Your task to perform on an android device: Add acer nitro to the cart on walmart, then select checkout. Image 0: 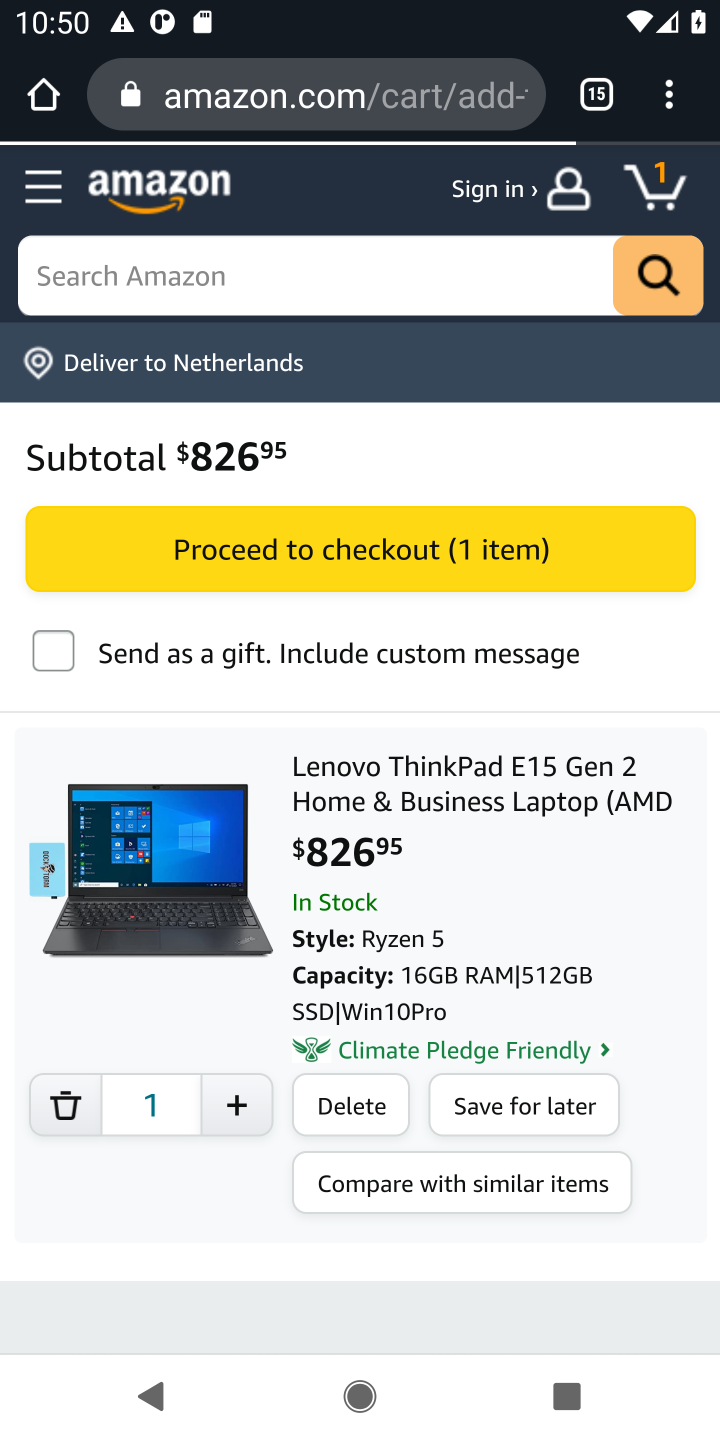
Step 0: press home button
Your task to perform on an android device: Add acer nitro to the cart on walmart, then select checkout. Image 1: 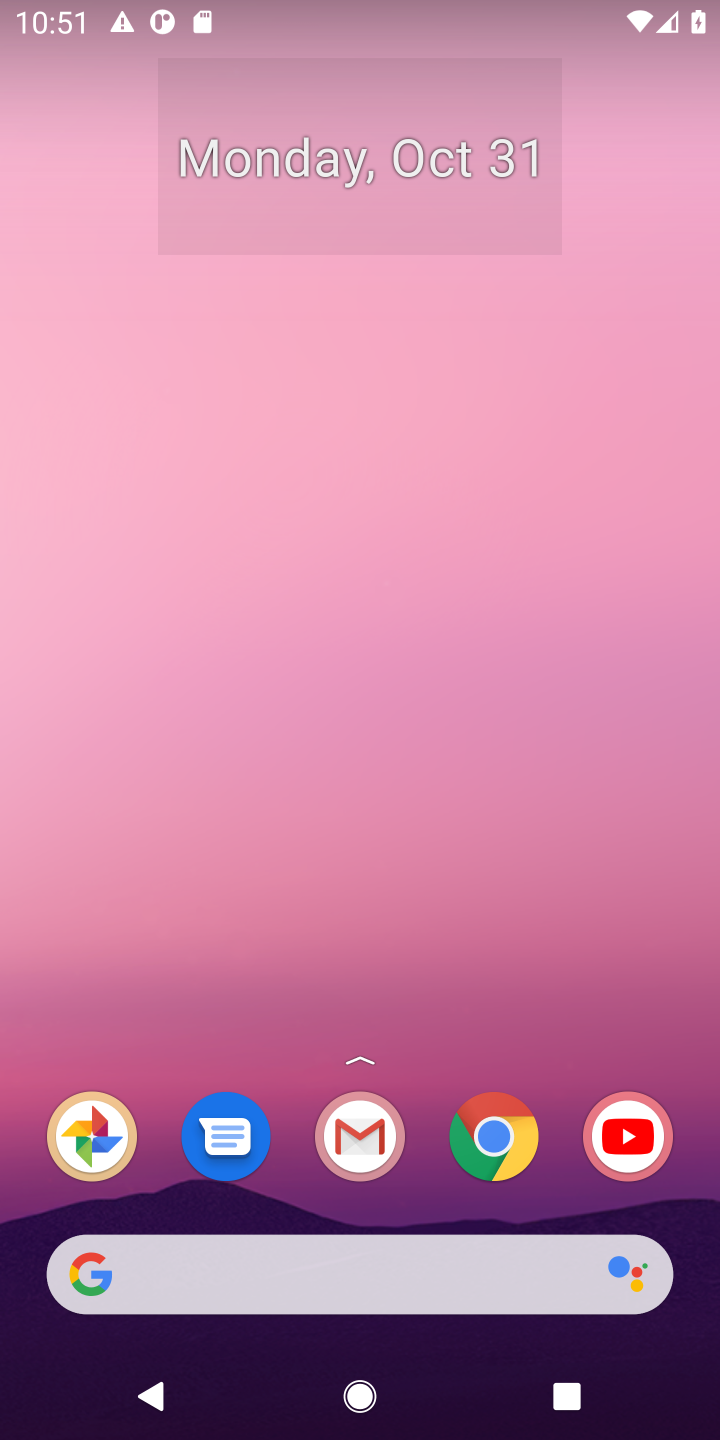
Step 1: click (126, 1263)
Your task to perform on an android device: Add acer nitro to the cart on walmart, then select checkout. Image 2: 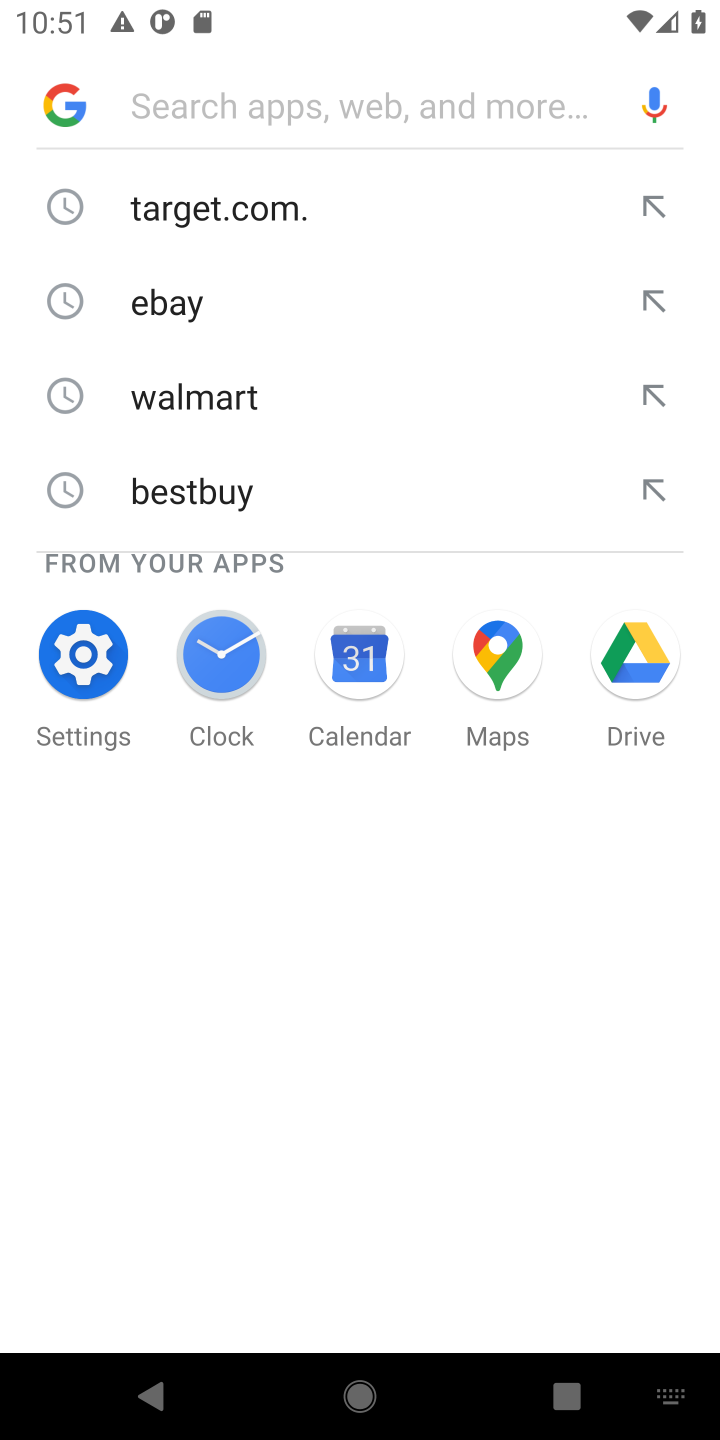
Step 2: type " walmart"
Your task to perform on an android device: Add acer nitro to the cart on walmart, then select checkout. Image 3: 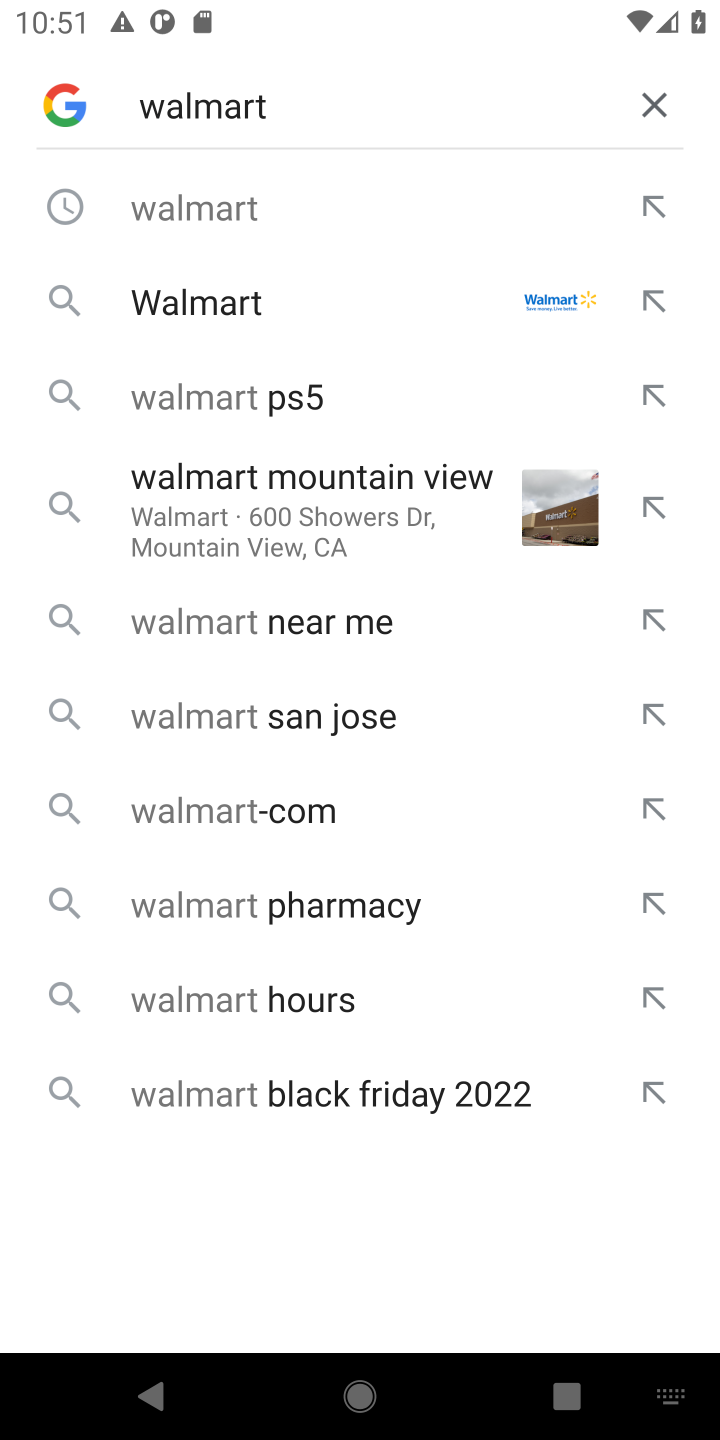
Step 3: press enter
Your task to perform on an android device: Add acer nitro to the cart on walmart, then select checkout. Image 4: 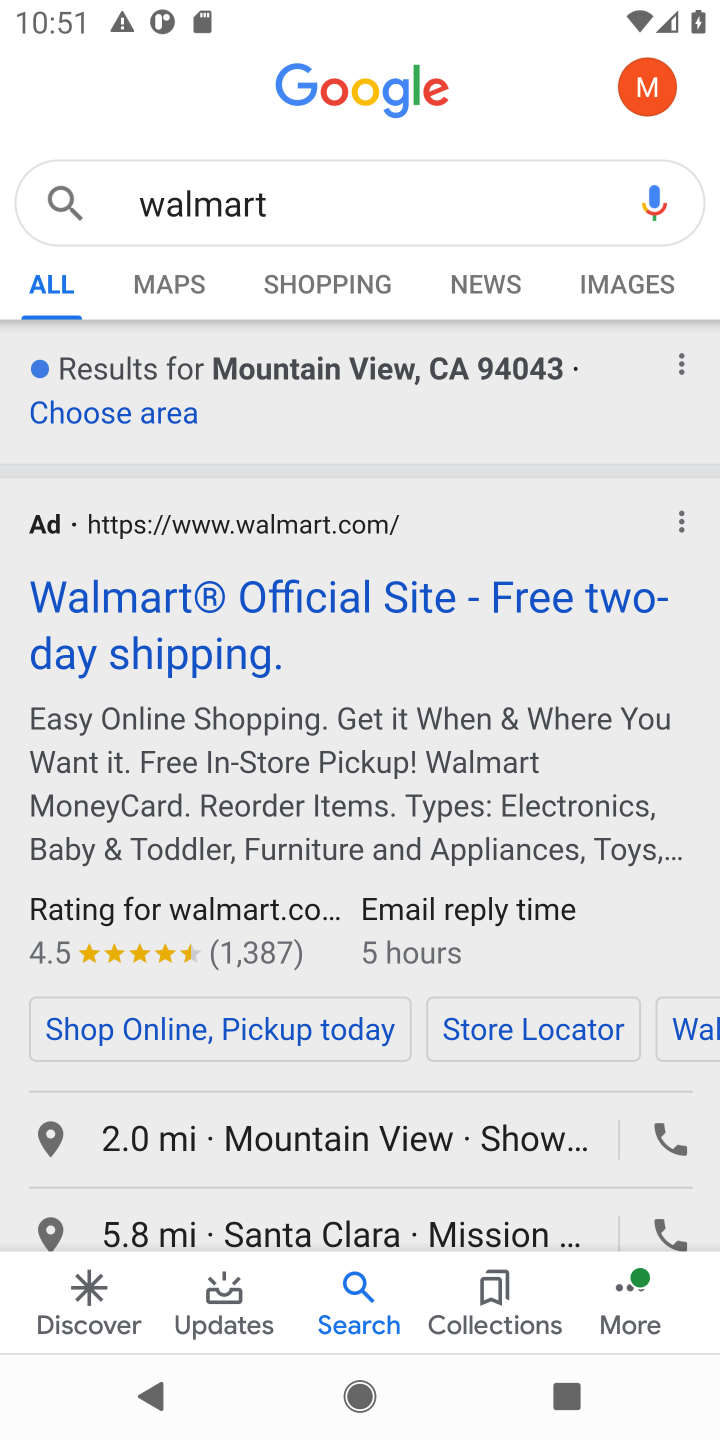
Step 4: click (133, 612)
Your task to perform on an android device: Add acer nitro to the cart on walmart, then select checkout. Image 5: 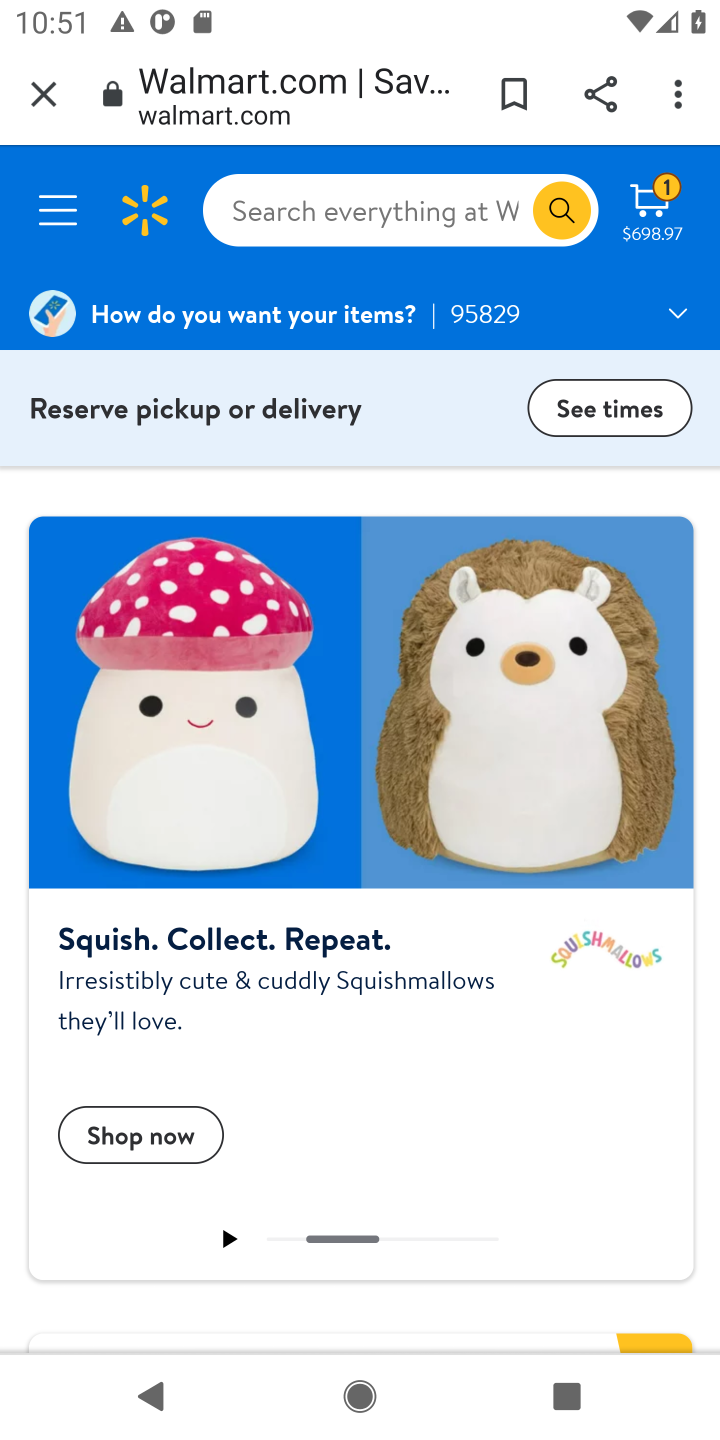
Step 5: click (301, 214)
Your task to perform on an android device: Add acer nitro to the cart on walmart, then select checkout. Image 6: 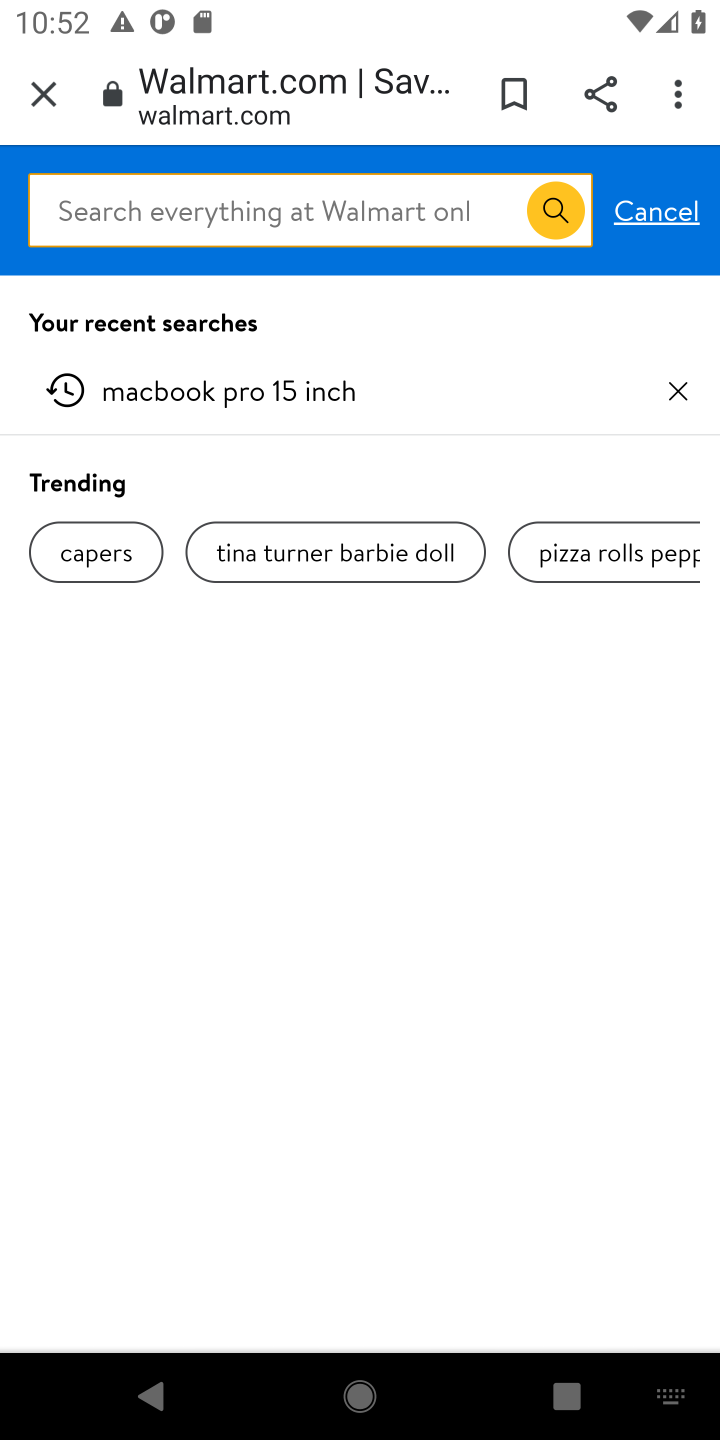
Step 6: type "acer nitro"
Your task to perform on an android device: Add acer nitro to the cart on walmart, then select checkout. Image 7: 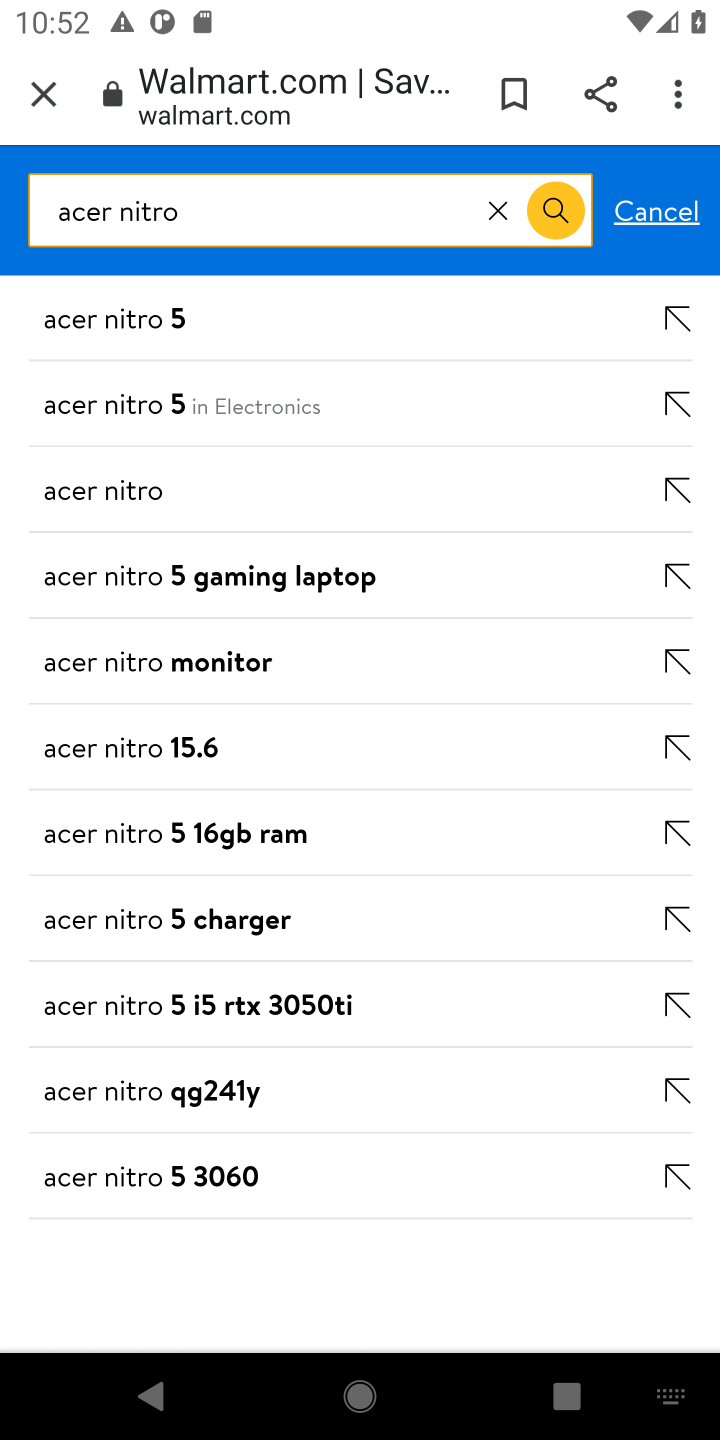
Step 7: click (555, 199)
Your task to perform on an android device: Add acer nitro to the cart on walmart, then select checkout. Image 8: 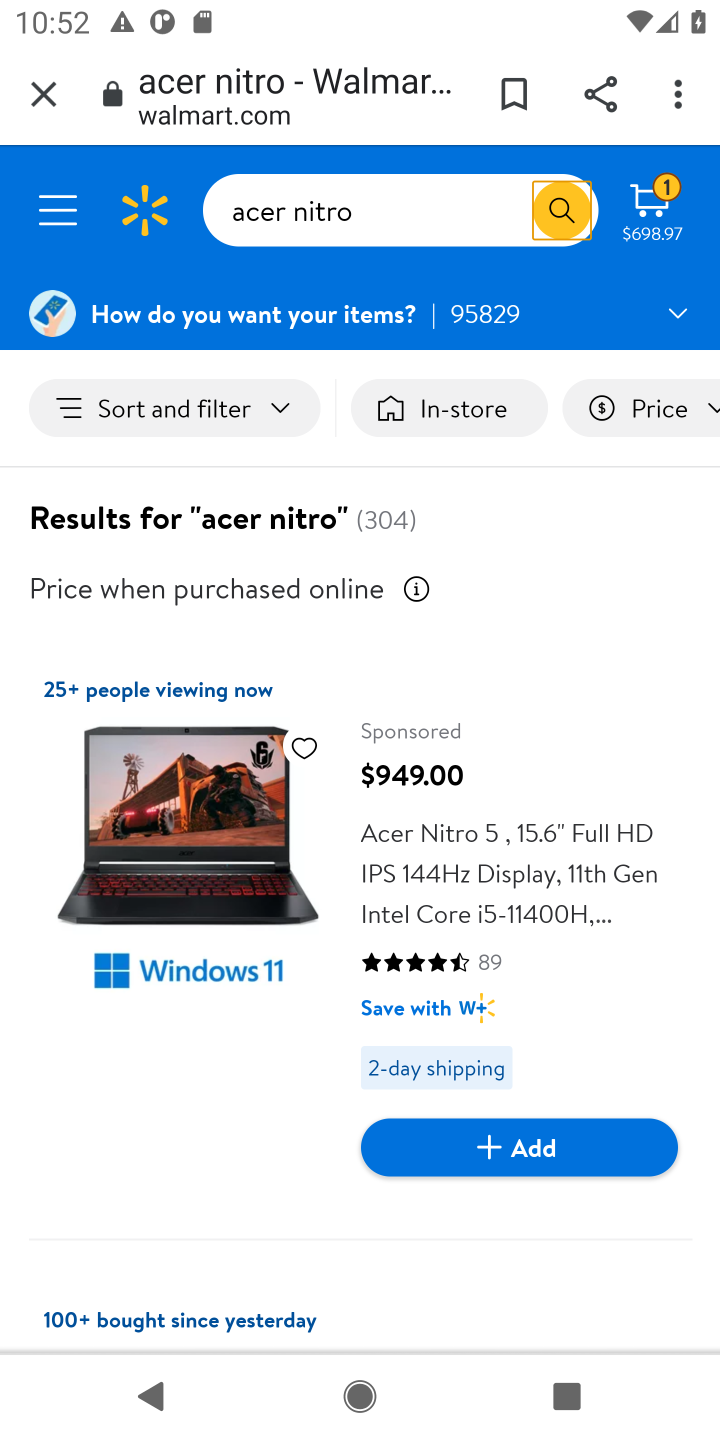
Step 8: click (516, 1155)
Your task to perform on an android device: Add acer nitro to the cart on walmart, then select checkout. Image 9: 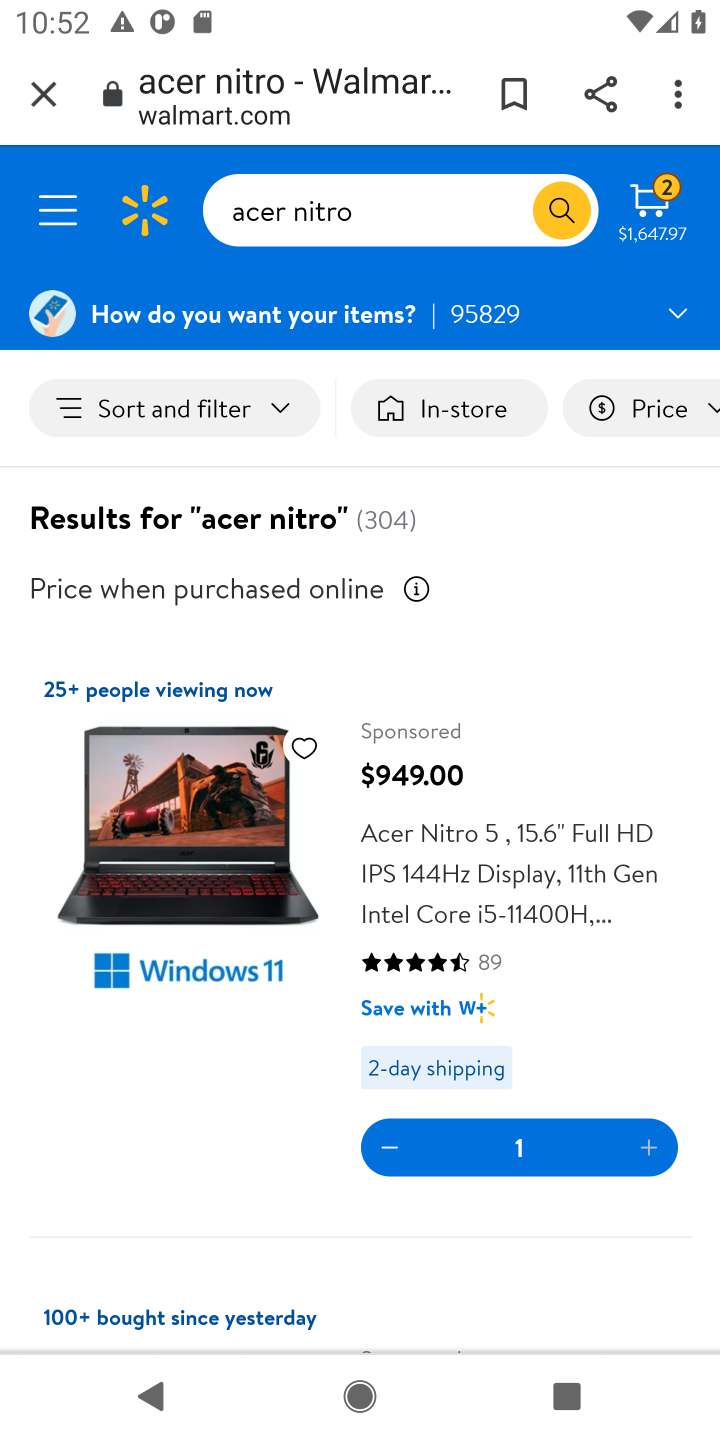
Step 9: click (658, 203)
Your task to perform on an android device: Add acer nitro to the cart on walmart, then select checkout. Image 10: 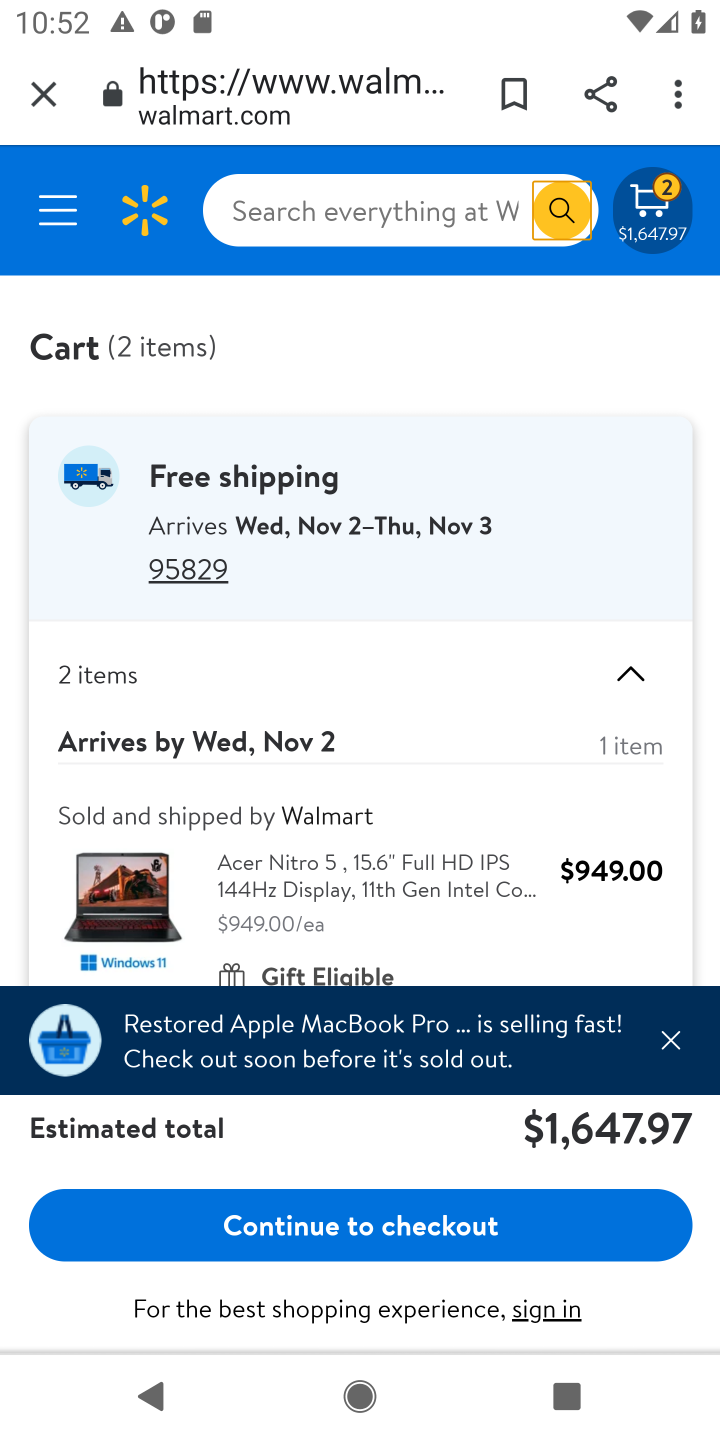
Step 10: click (401, 1233)
Your task to perform on an android device: Add acer nitro to the cart on walmart, then select checkout. Image 11: 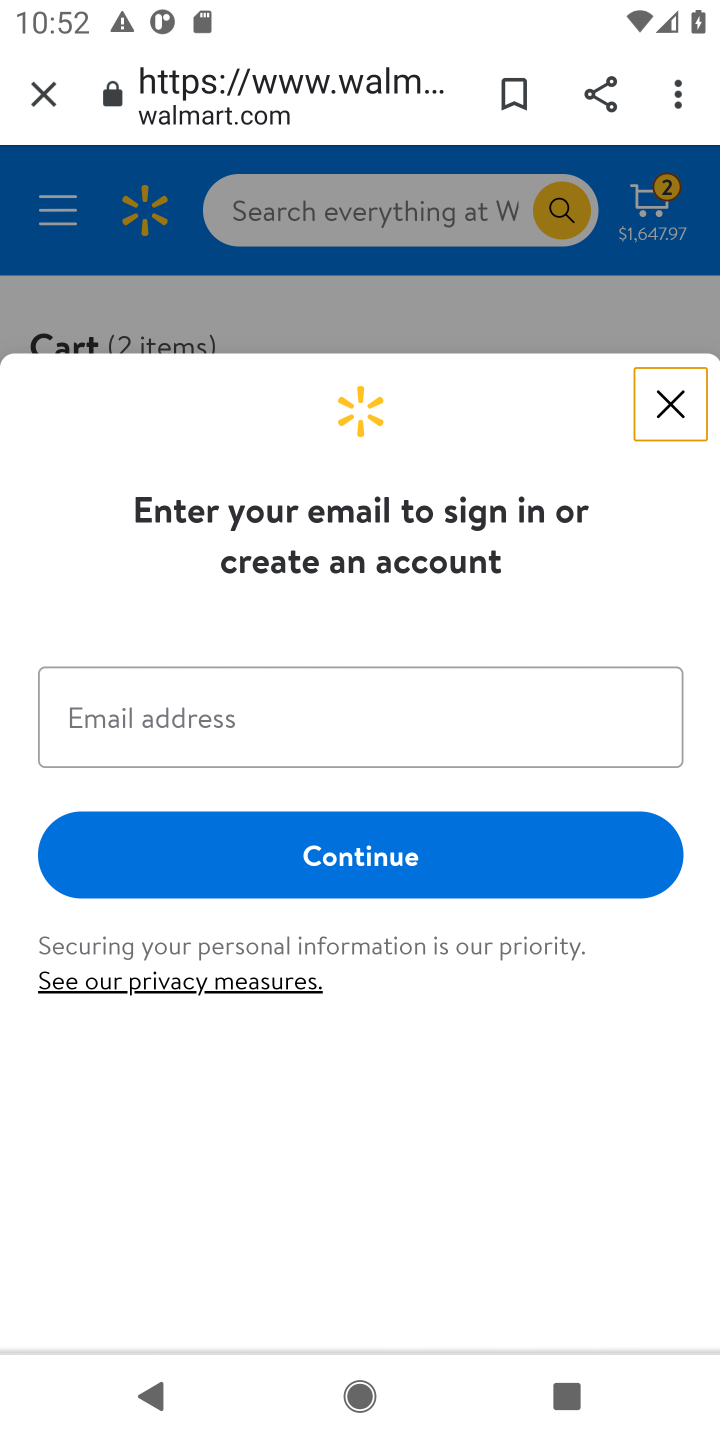
Step 11: task complete